Your task to perform on an android device: Search for pizza restaurants on Maps Image 0: 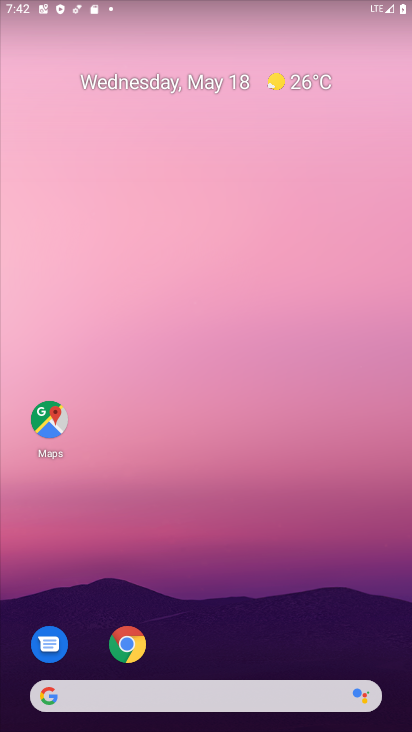
Step 0: click (52, 423)
Your task to perform on an android device: Search for pizza restaurants on Maps Image 1: 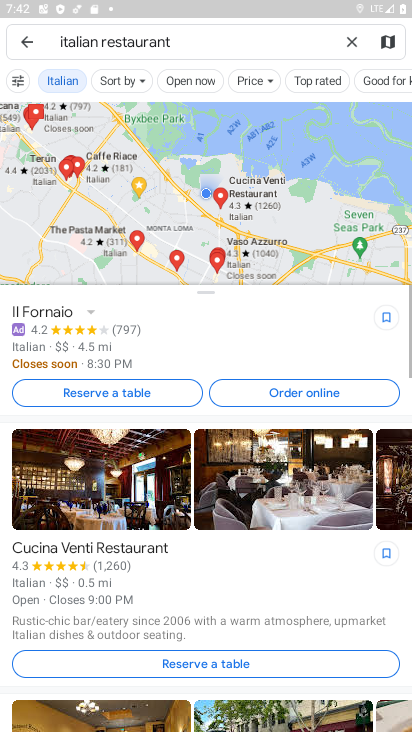
Step 1: click (355, 35)
Your task to perform on an android device: Search for pizza restaurants on Maps Image 2: 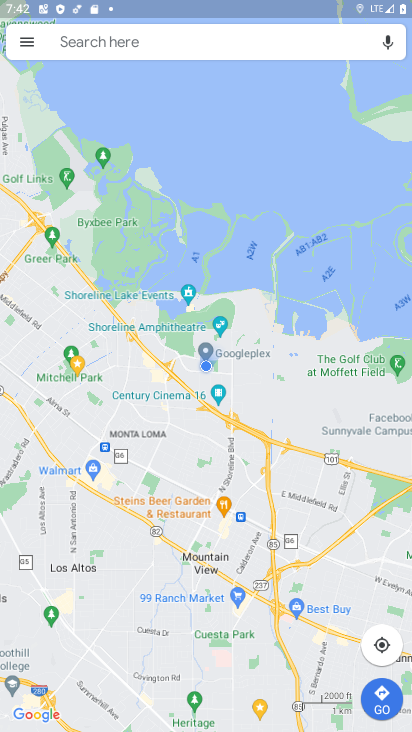
Step 2: click (52, 38)
Your task to perform on an android device: Search for pizza restaurants on Maps Image 3: 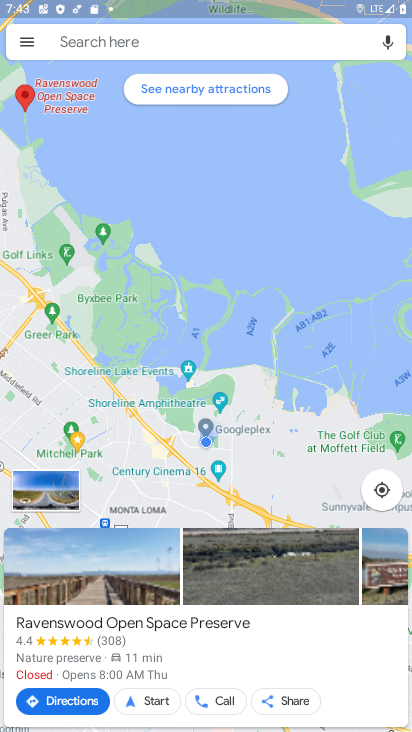
Step 3: click (70, 38)
Your task to perform on an android device: Search for pizza restaurants on Maps Image 4: 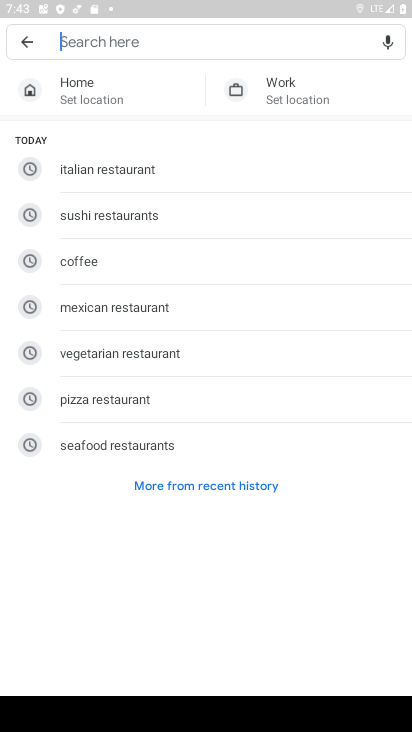
Step 4: type " pizza restaurants"
Your task to perform on an android device: Search for pizza restaurants on Maps Image 5: 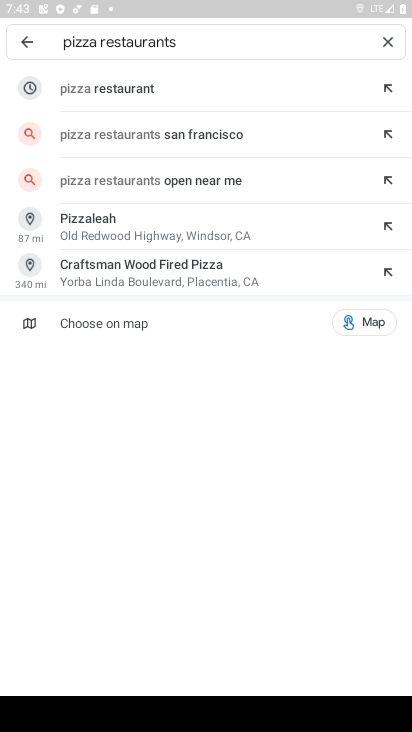
Step 5: click (113, 89)
Your task to perform on an android device: Search for pizza restaurants on Maps Image 6: 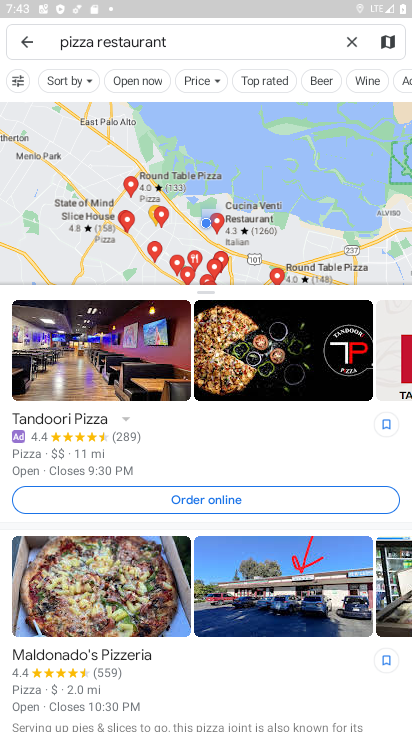
Step 6: task complete